Your task to perform on an android device: toggle sleep mode Image 0: 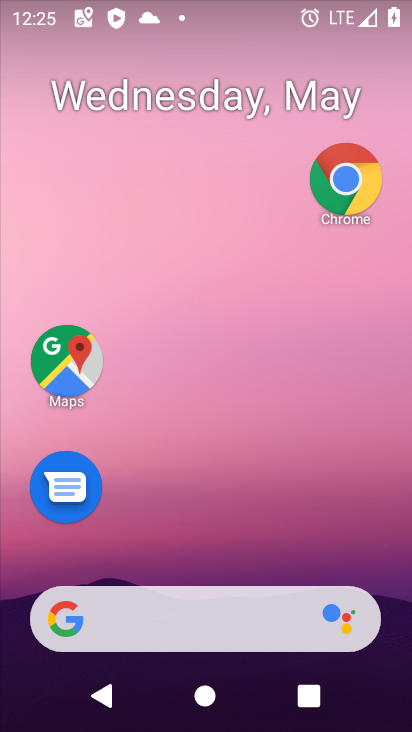
Step 0: drag from (203, 581) to (237, 394)
Your task to perform on an android device: toggle sleep mode Image 1: 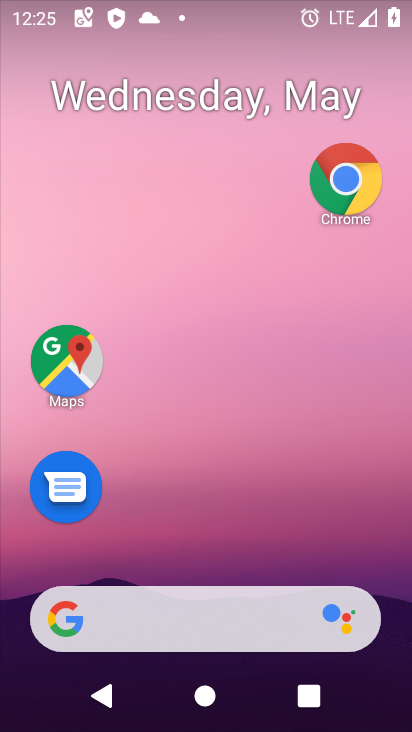
Step 1: drag from (229, 578) to (299, 242)
Your task to perform on an android device: toggle sleep mode Image 2: 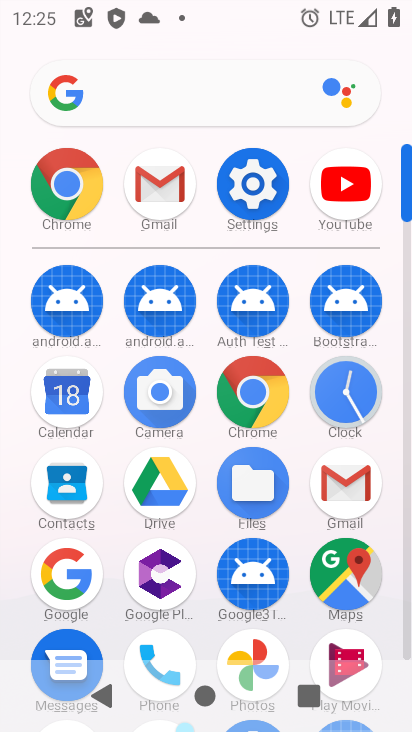
Step 2: click (259, 206)
Your task to perform on an android device: toggle sleep mode Image 3: 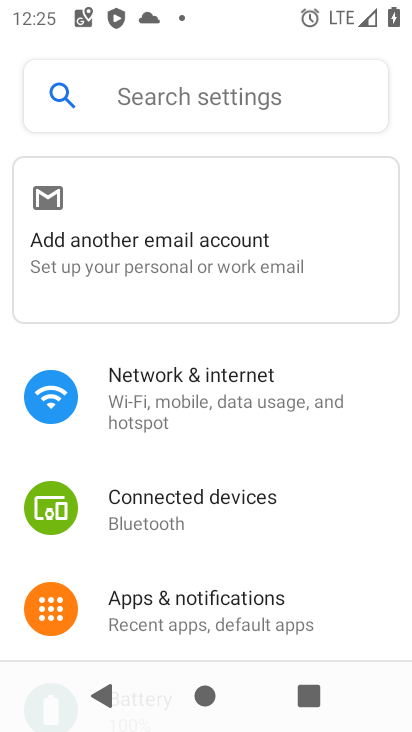
Step 3: drag from (231, 624) to (281, 238)
Your task to perform on an android device: toggle sleep mode Image 4: 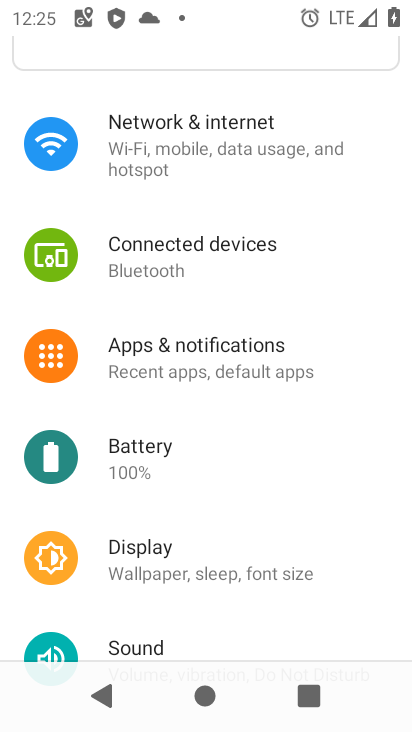
Step 4: click (236, 366)
Your task to perform on an android device: toggle sleep mode Image 5: 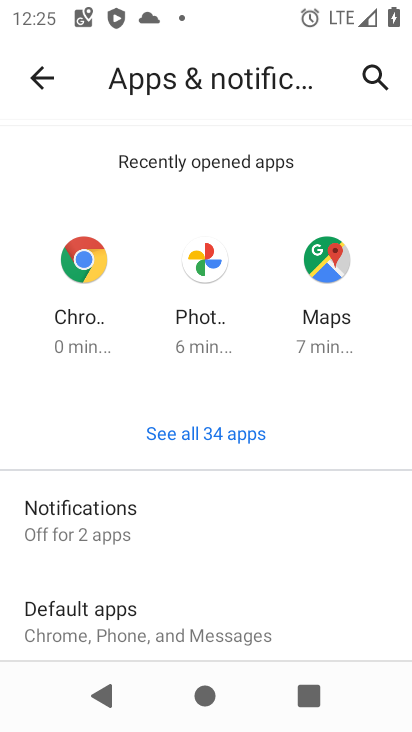
Step 5: drag from (282, 585) to (314, 390)
Your task to perform on an android device: toggle sleep mode Image 6: 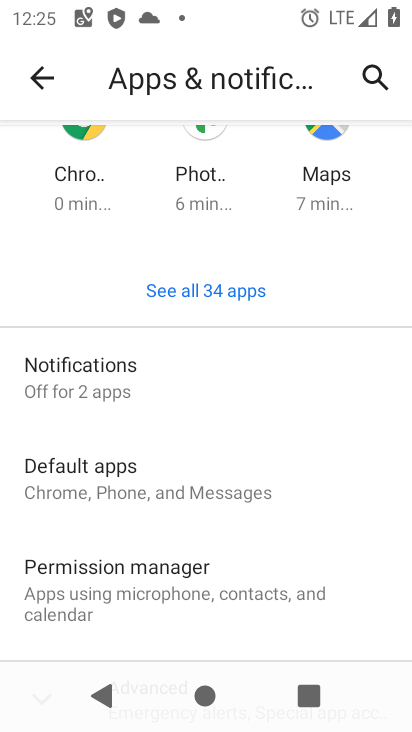
Step 6: press home button
Your task to perform on an android device: toggle sleep mode Image 7: 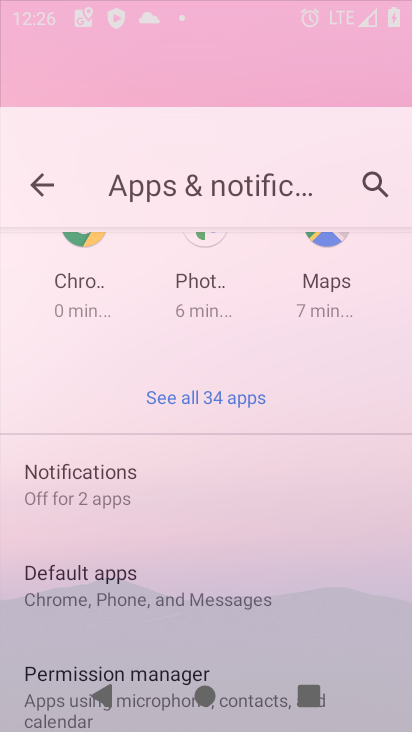
Step 7: drag from (295, 591) to (326, 179)
Your task to perform on an android device: toggle sleep mode Image 8: 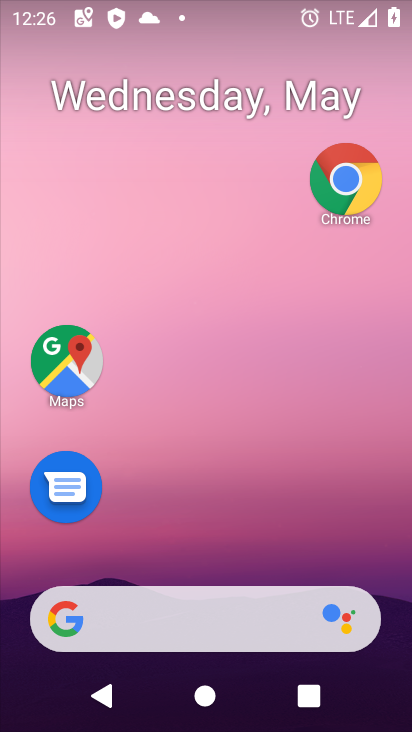
Step 8: drag from (194, 521) to (399, 212)
Your task to perform on an android device: toggle sleep mode Image 9: 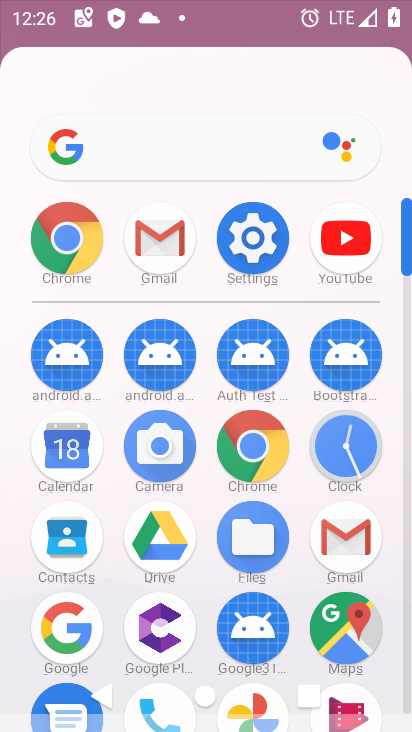
Step 9: click (232, 238)
Your task to perform on an android device: toggle sleep mode Image 10: 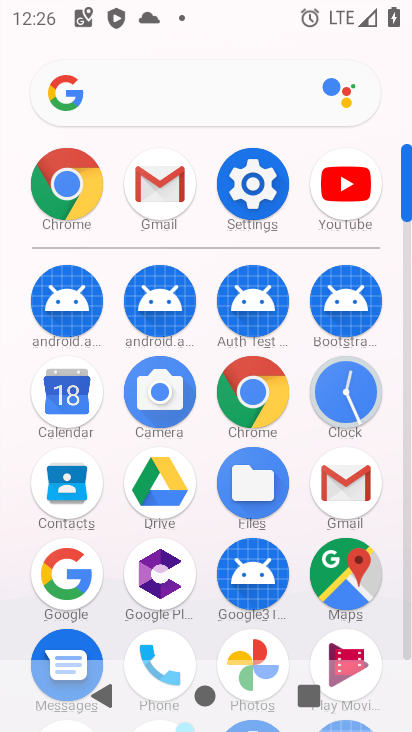
Step 10: click (259, 155)
Your task to perform on an android device: toggle sleep mode Image 11: 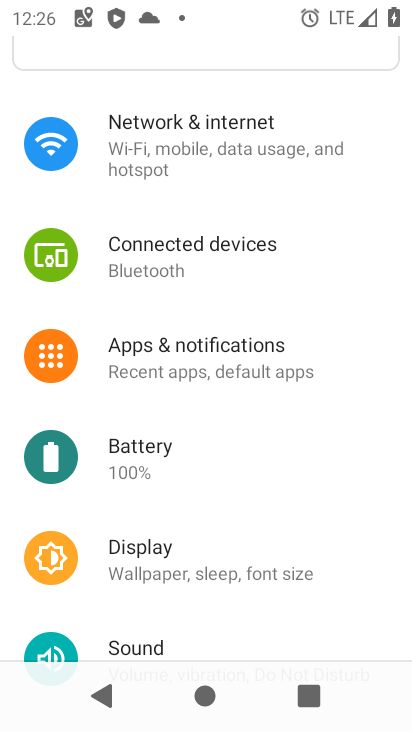
Step 11: click (193, 374)
Your task to perform on an android device: toggle sleep mode Image 12: 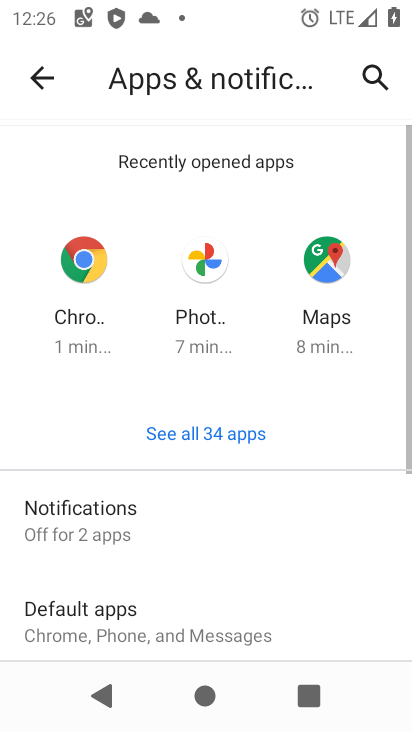
Step 12: click (45, 72)
Your task to perform on an android device: toggle sleep mode Image 13: 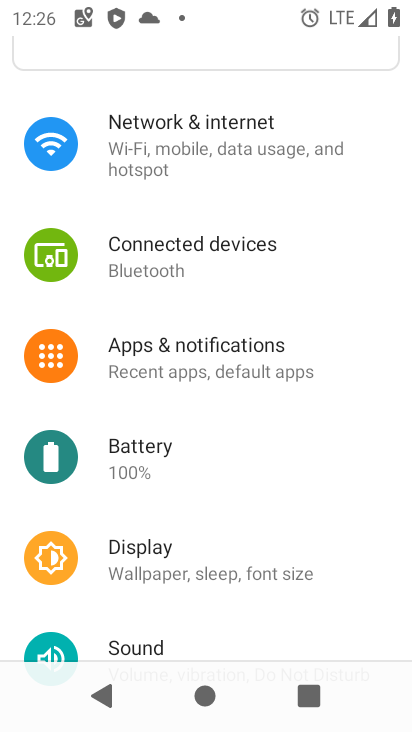
Step 13: drag from (259, 592) to (397, 152)
Your task to perform on an android device: toggle sleep mode Image 14: 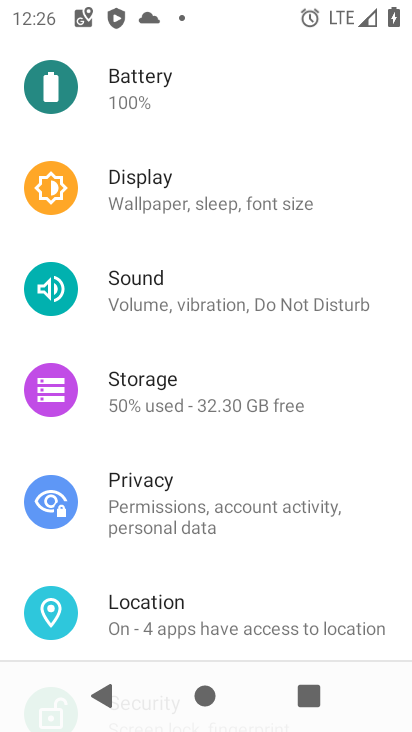
Step 14: click (169, 190)
Your task to perform on an android device: toggle sleep mode Image 15: 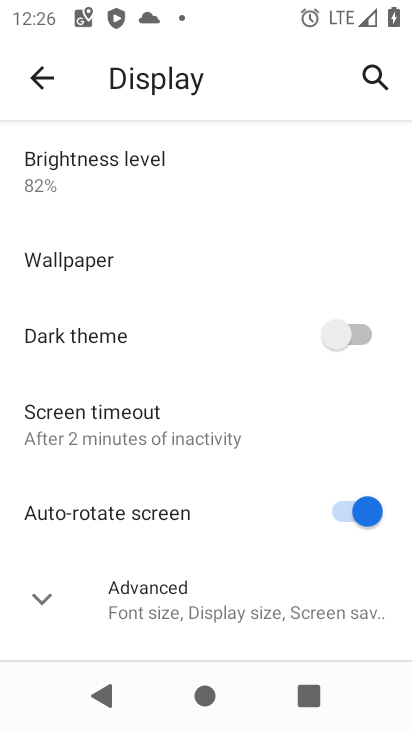
Step 15: click (213, 422)
Your task to perform on an android device: toggle sleep mode Image 16: 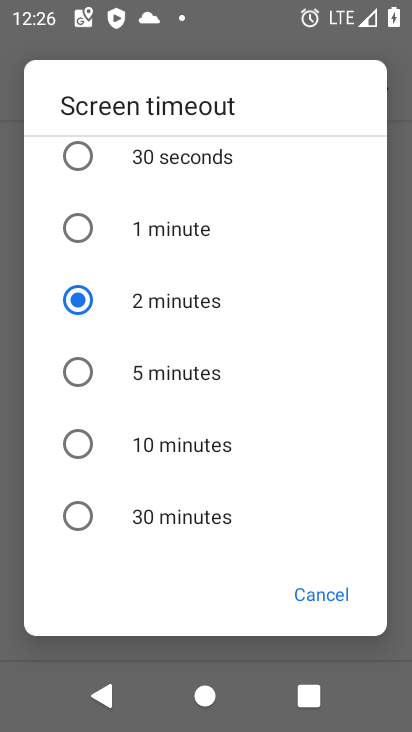
Step 16: task complete